Your task to perform on an android device: manage bookmarks in the chrome app Image 0: 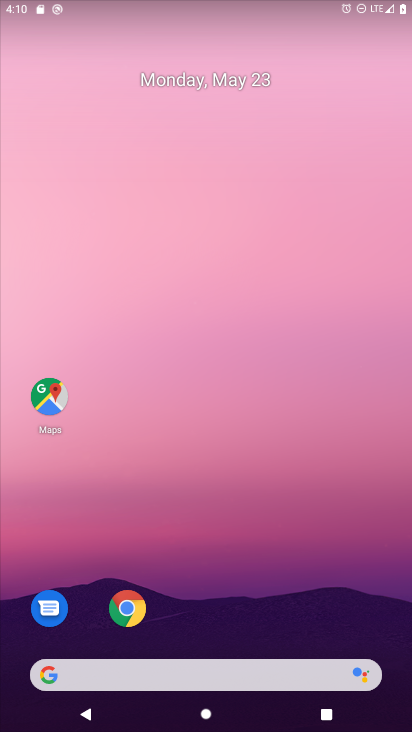
Step 0: click (128, 604)
Your task to perform on an android device: manage bookmarks in the chrome app Image 1: 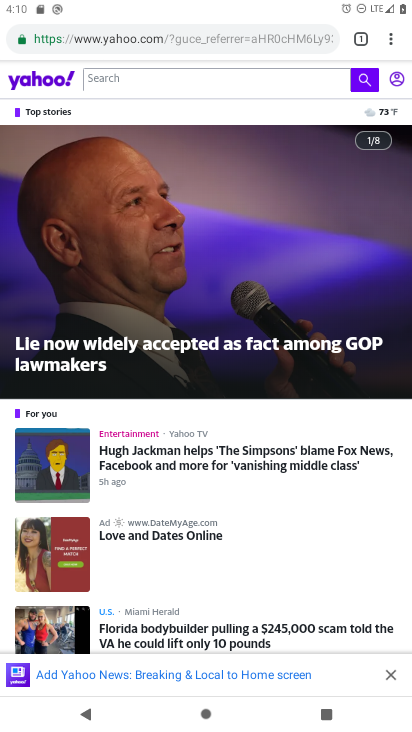
Step 1: click (392, 37)
Your task to perform on an android device: manage bookmarks in the chrome app Image 2: 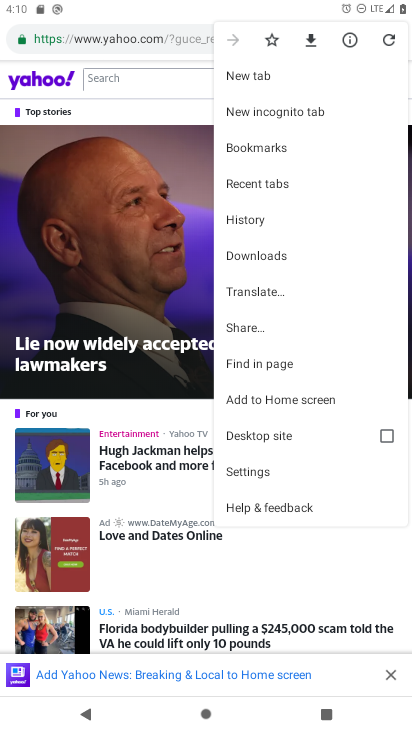
Step 2: click (275, 153)
Your task to perform on an android device: manage bookmarks in the chrome app Image 3: 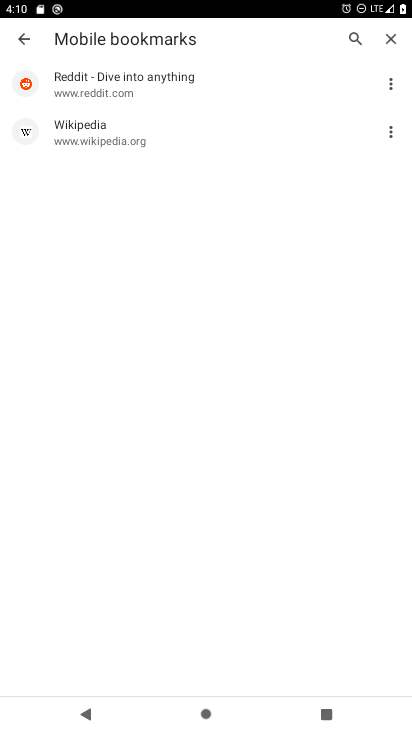
Step 3: click (392, 82)
Your task to perform on an android device: manage bookmarks in the chrome app Image 4: 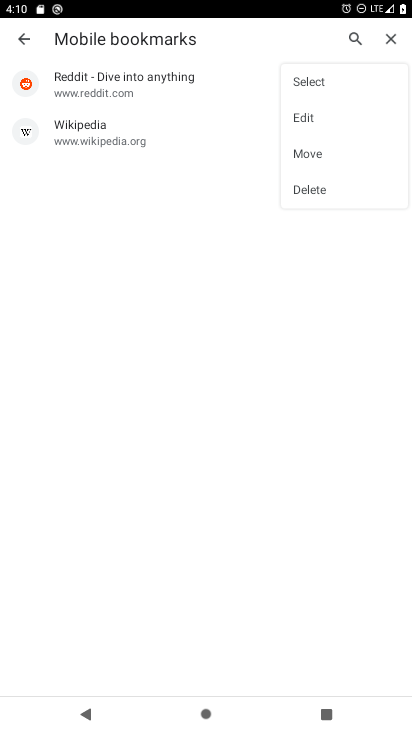
Step 4: click (318, 178)
Your task to perform on an android device: manage bookmarks in the chrome app Image 5: 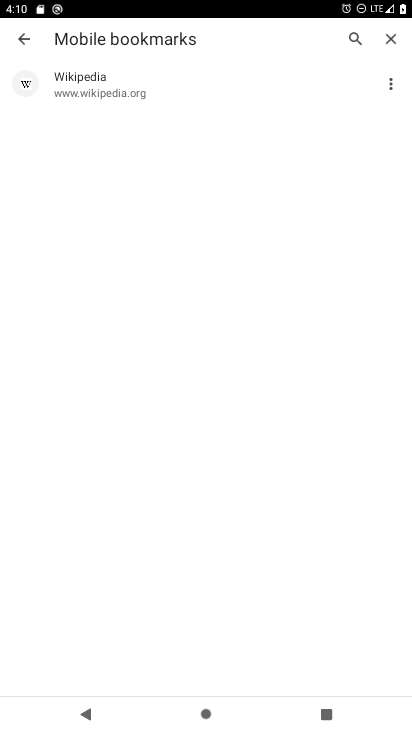
Step 5: task complete